Your task to perform on an android device: Open calendar and show me the fourth week of next month Image 0: 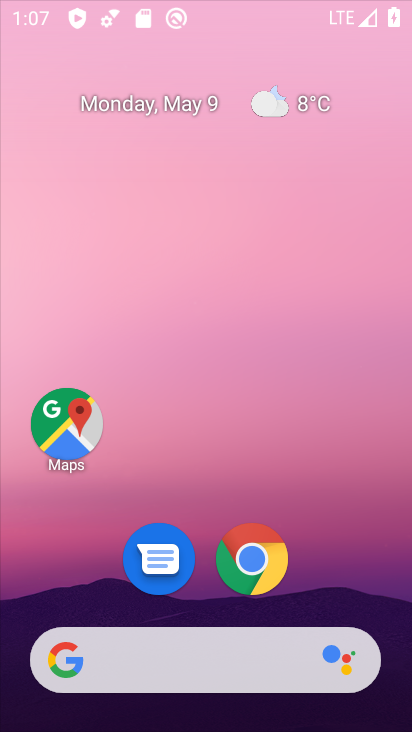
Step 0: press home button
Your task to perform on an android device: Open calendar and show me the fourth week of next month Image 1: 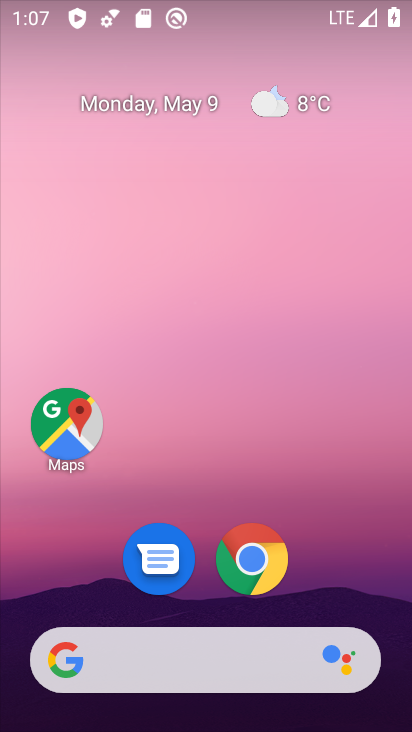
Step 1: drag from (314, 529) to (236, 182)
Your task to perform on an android device: Open calendar and show me the fourth week of next month Image 2: 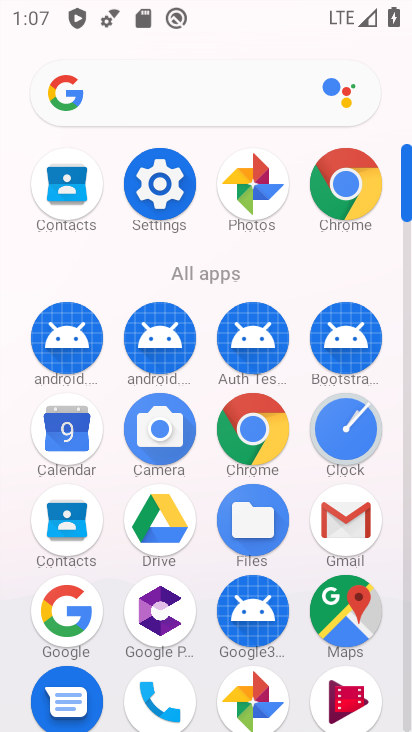
Step 2: click (75, 445)
Your task to perform on an android device: Open calendar and show me the fourth week of next month Image 3: 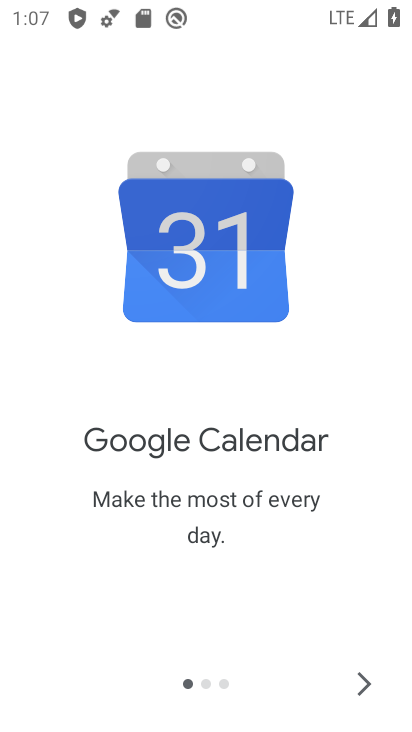
Step 3: click (359, 687)
Your task to perform on an android device: Open calendar and show me the fourth week of next month Image 4: 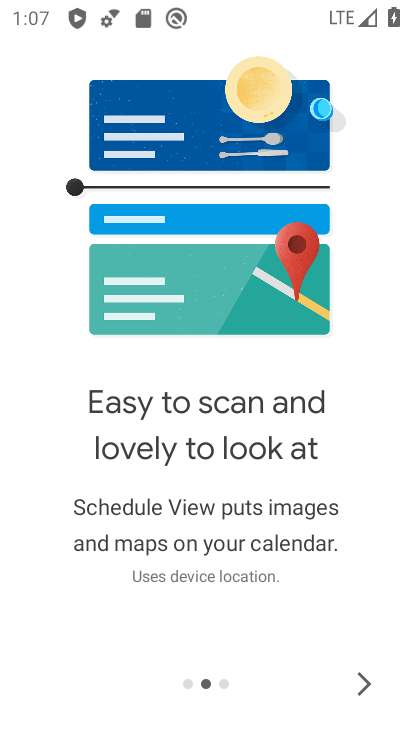
Step 4: click (359, 687)
Your task to perform on an android device: Open calendar and show me the fourth week of next month Image 5: 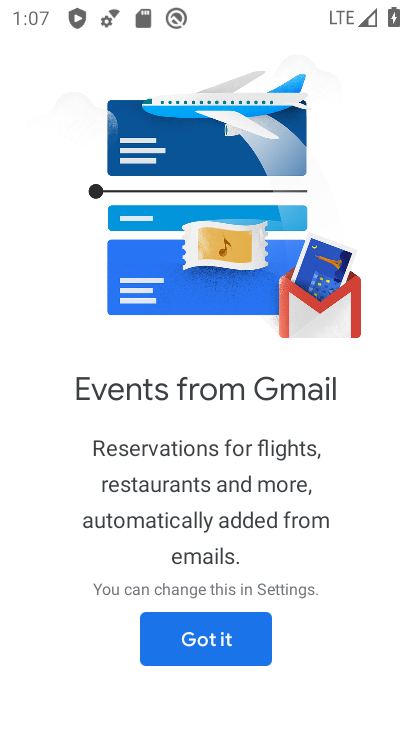
Step 5: click (220, 635)
Your task to perform on an android device: Open calendar and show me the fourth week of next month Image 6: 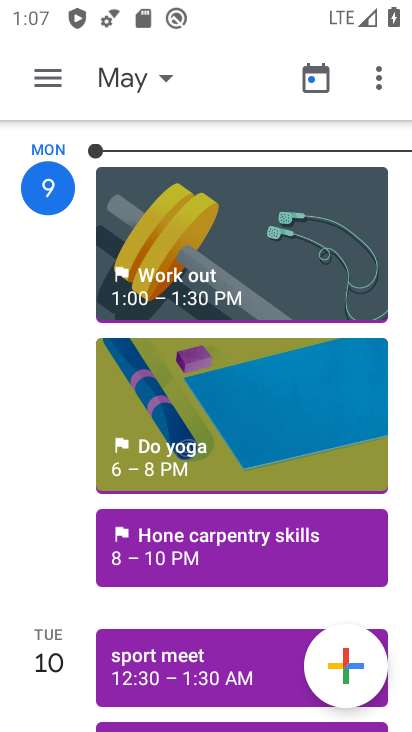
Step 6: click (47, 76)
Your task to perform on an android device: Open calendar and show me the fourth week of next month Image 7: 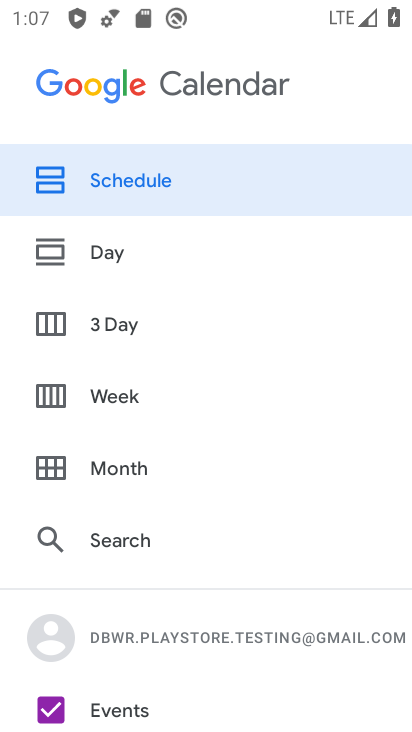
Step 7: click (113, 394)
Your task to perform on an android device: Open calendar and show me the fourth week of next month Image 8: 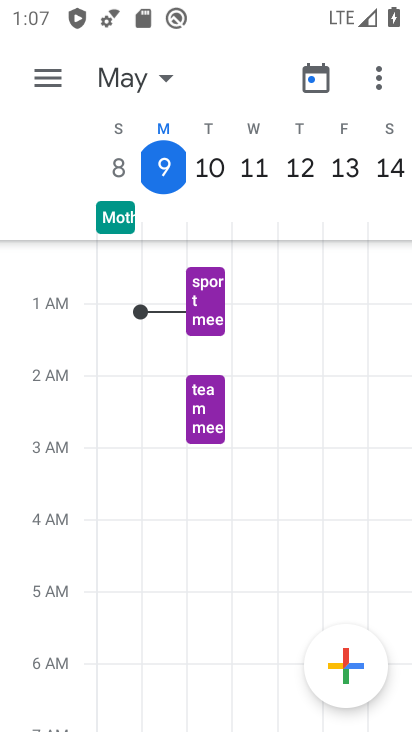
Step 8: click (166, 79)
Your task to perform on an android device: Open calendar and show me the fourth week of next month Image 9: 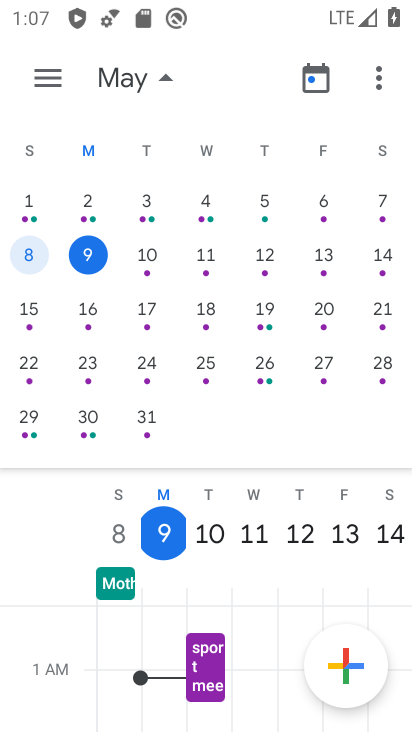
Step 9: drag from (339, 276) to (28, 287)
Your task to perform on an android device: Open calendar and show me the fourth week of next month Image 10: 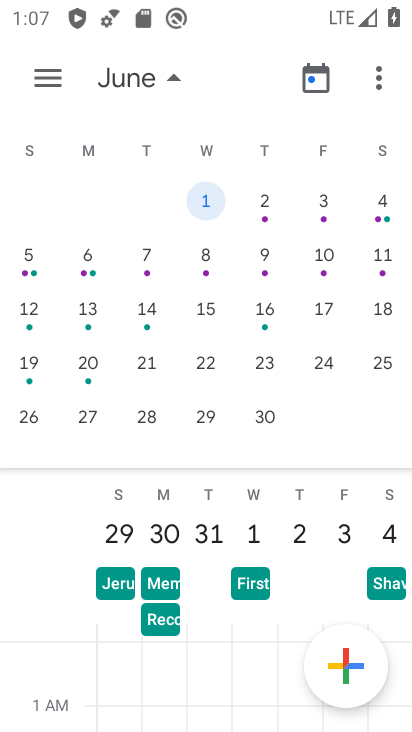
Step 10: click (207, 361)
Your task to perform on an android device: Open calendar and show me the fourth week of next month Image 11: 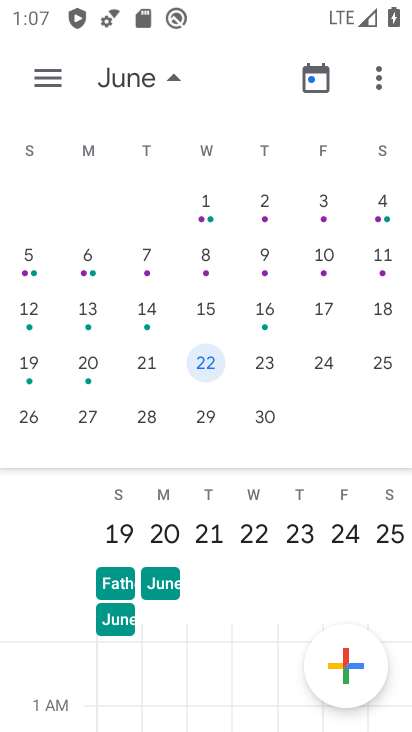
Step 11: task complete